Your task to perform on an android device: create a new album in the google photos Image 0: 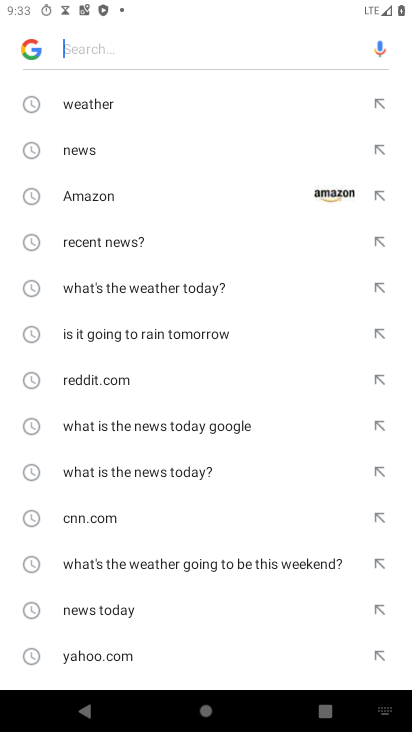
Step 0: press home button
Your task to perform on an android device: create a new album in the google photos Image 1: 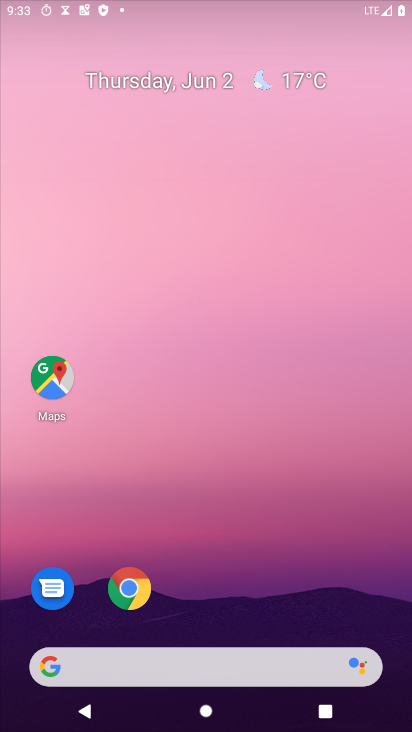
Step 1: drag from (187, 595) to (253, 161)
Your task to perform on an android device: create a new album in the google photos Image 2: 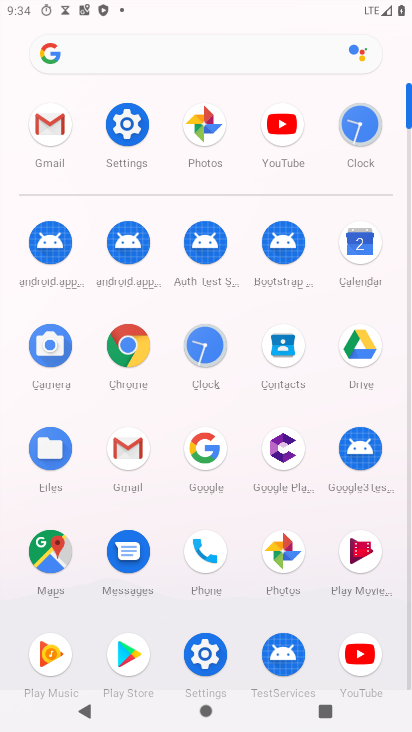
Step 2: click (289, 551)
Your task to perform on an android device: create a new album in the google photos Image 3: 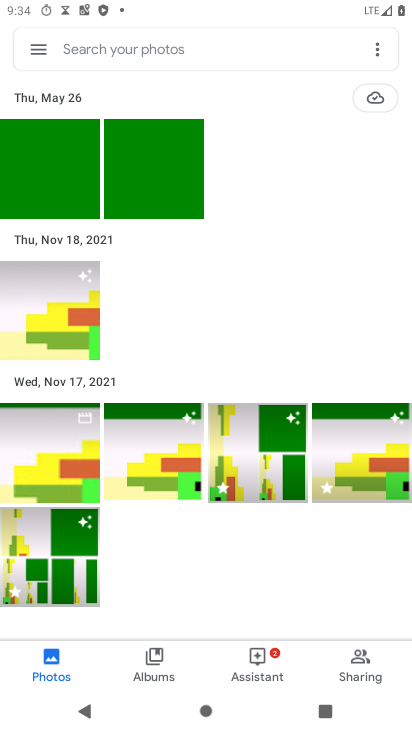
Step 3: click (371, 45)
Your task to perform on an android device: create a new album in the google photos Image 4: 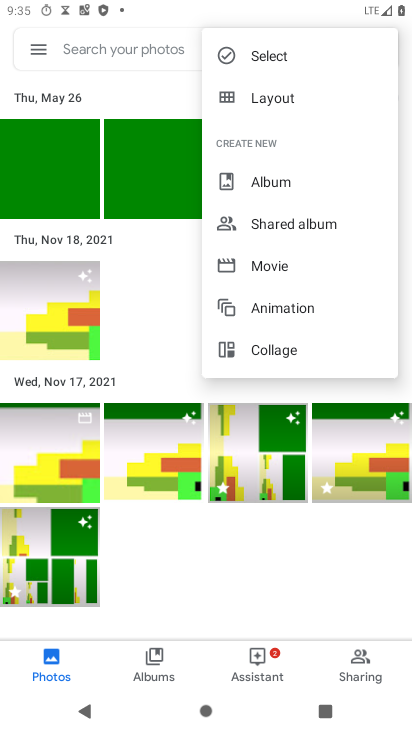
Step 4: click (280, 175)
Your task to perform on an android device: create a new album in the google photos Image 5: 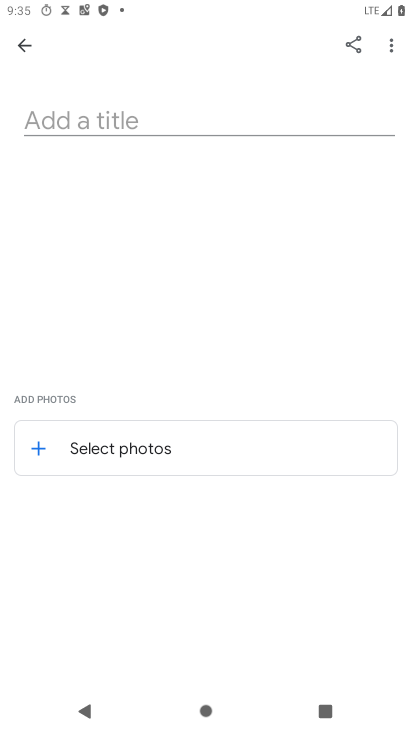
Step 5: click (43, 112)
Your task to perform on an android device: create a new album in the google photos Image 6: 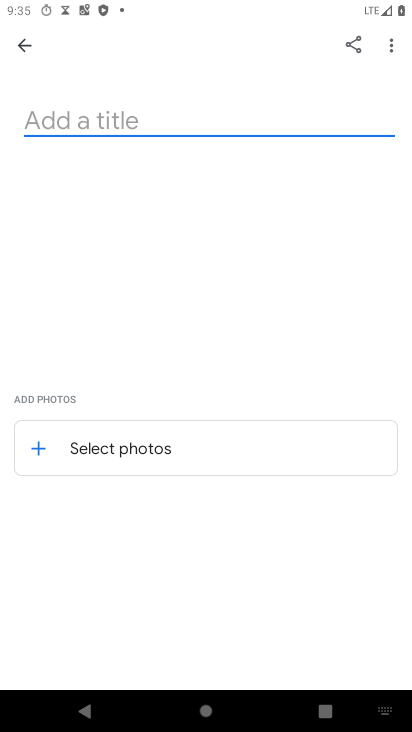
Step 6: type "vvgvg"
Your task to perform on an android device: create a new album in the google photos Image 7: 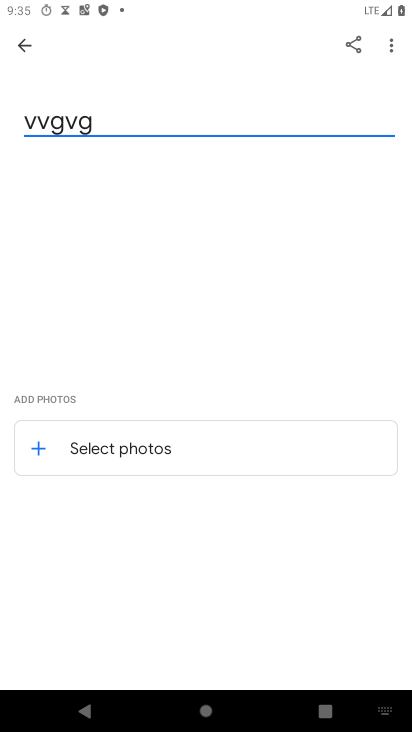
Step 7: click (169, 440)
Your task to perform on an android device: create a new album in the google photos Image 8: 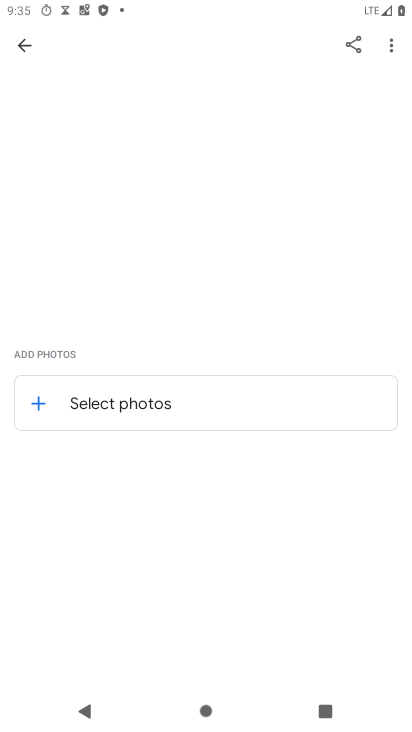
Step 8: click (105, 403)
Your task to perform on an android device: create a new album in the google photos Image 9: 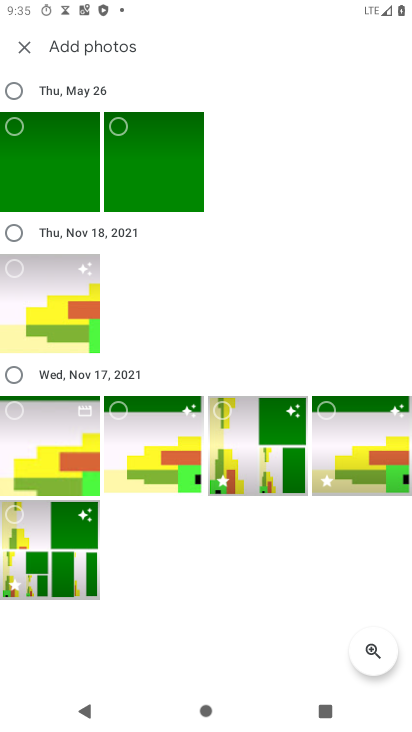
Step 9: click (24, 87)
Your task to perform on an android device: create a new album in the google photos Image 10: 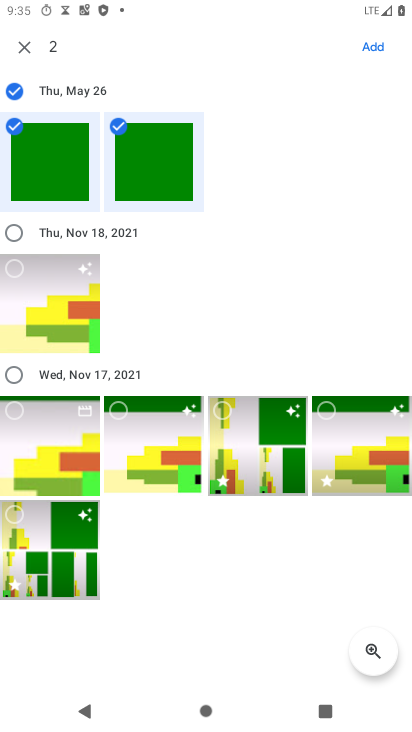
Step 10: click (21, 377)
Your task to perform on an android device: create a new album in the google photos Image 11: 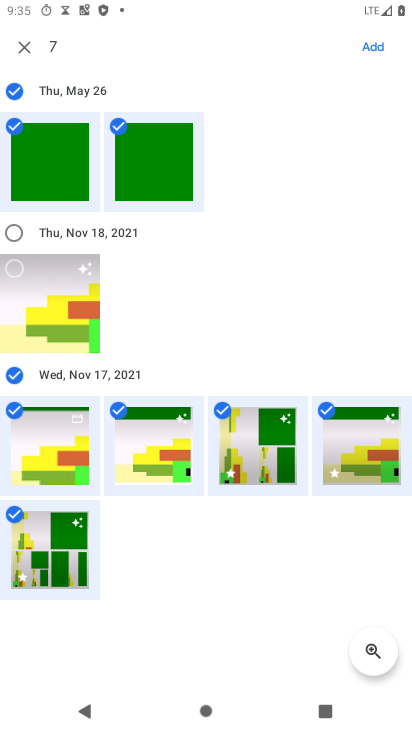
Step 11: click (380, 37)
Your task to perform on an android device: create a new album in the google photos Image 12: 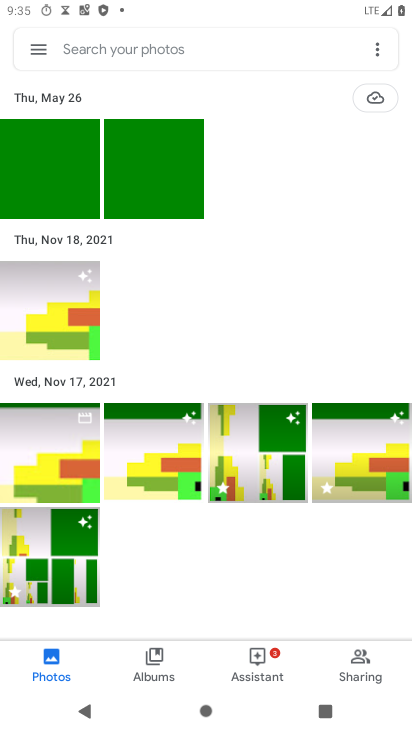
Step 12: click (375, 40)
Your task to perform on an android device: create a new album in the google photos Image 13: 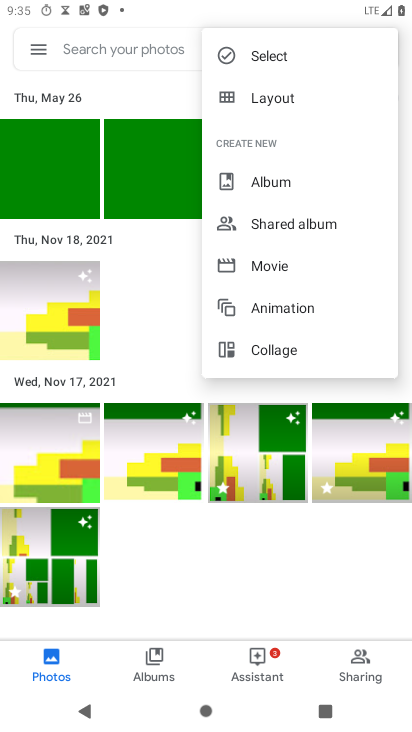
Step 13: click (268, 179)
Your task to perform on an android device: create a new album in the google photos Image 14: 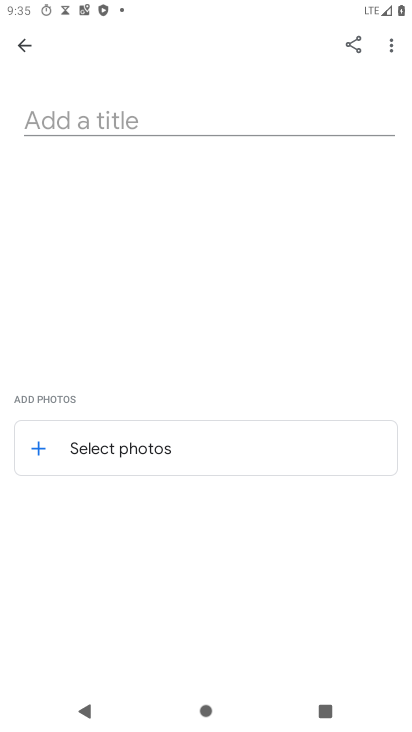
Step 14: click (132, 120)
Your task to perform on an android device: create a new album in the google photos Image 15: 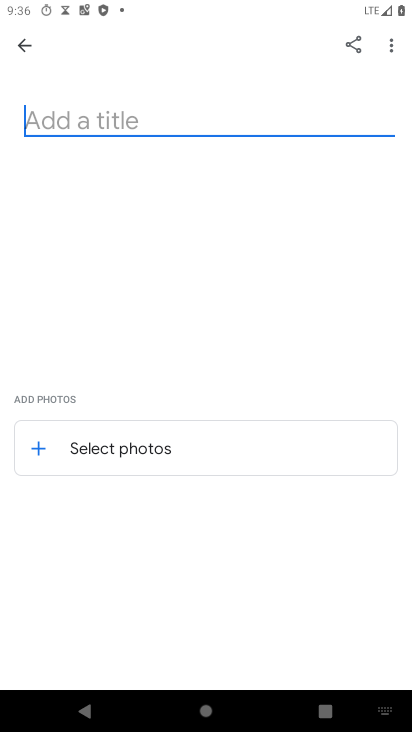
Step 15: type "vhvv"
Your task to perform on an android device: create a new album in the google photos Image 16: 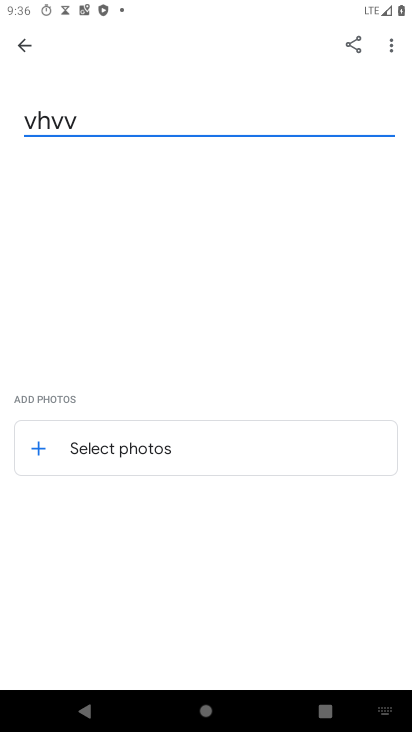
Step 16: click (119, 453)
Your task to perform on an android device: create a new album in the google photos Image 17: 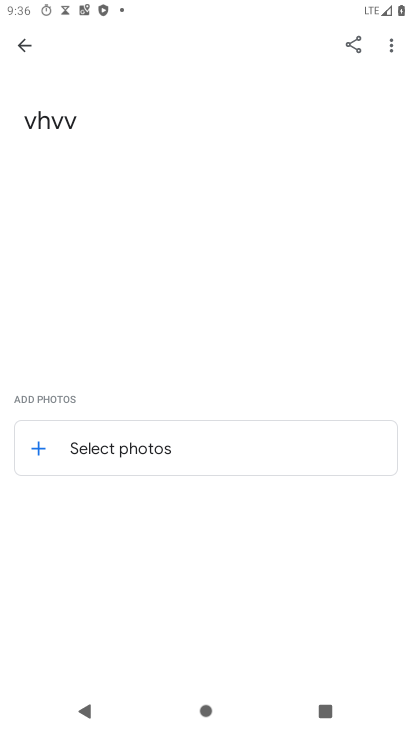
Step 17: click (108, 445)
Your task to perform on an android device: create a new album in the google photos Image 18: 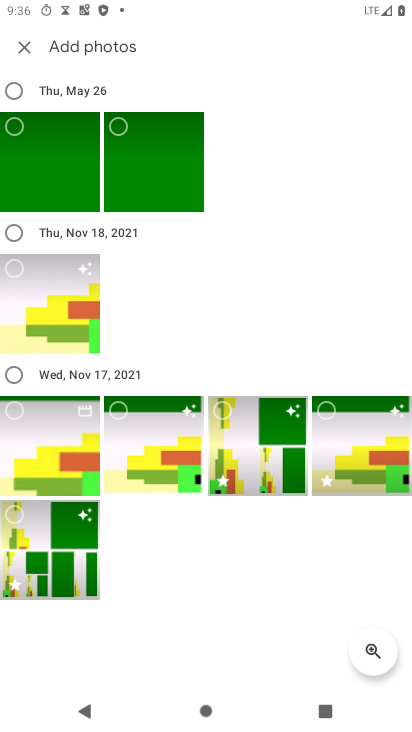
Step 18: click (22, 98)
Your task to perform on an android device: create a new album in the google photos Image 19: 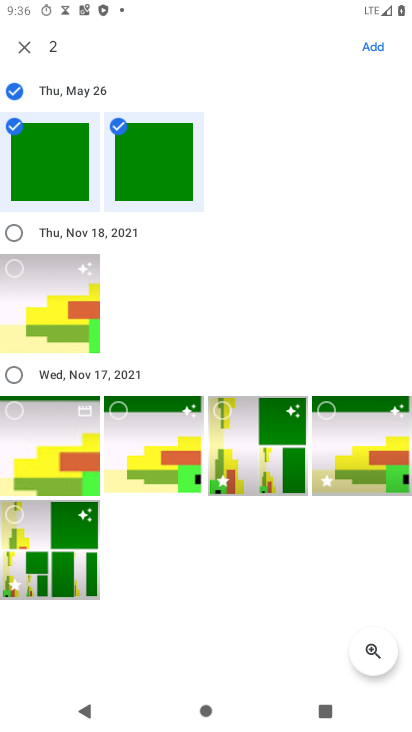
Step 19: click (13, 362)
Your task to perform on an android device: create a new album in the google photos Image 20: 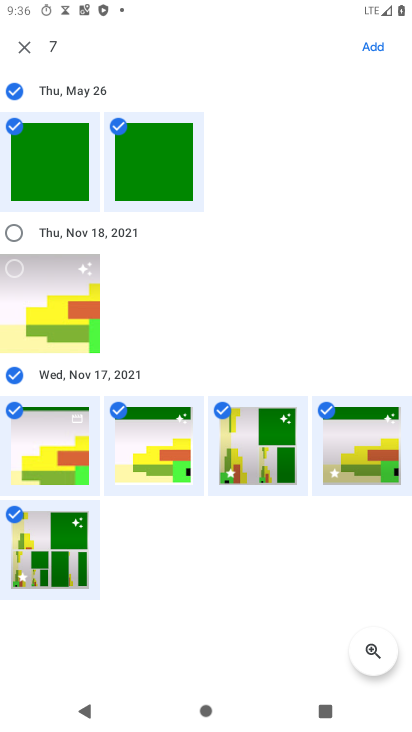
Step 20: click (16, 232)
Your task to perform on an android device: create a new album in the google photos Image 21: 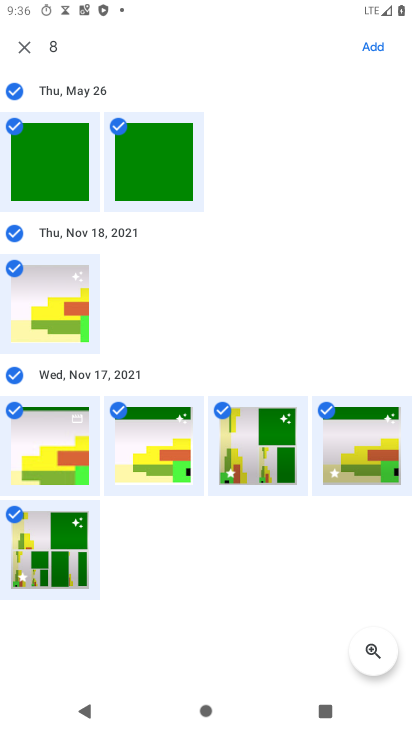
Step 21: click (362, 47)
Your task to perform on an android device: create a new album in the google photos Image 22: 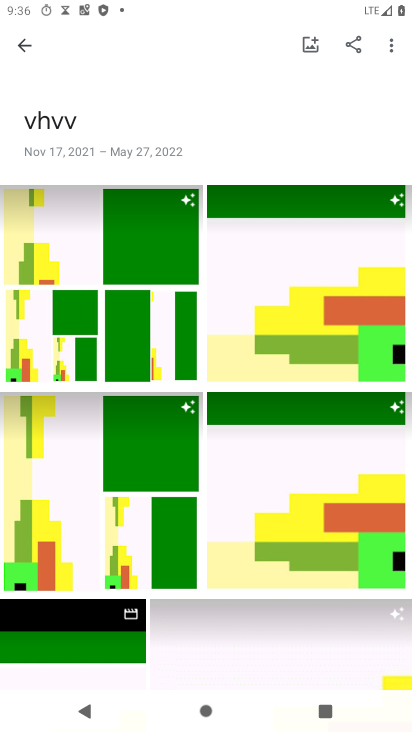
Step 22: task complete